Your task to perform on an android device: Find coffee shops on Maps Image 0: 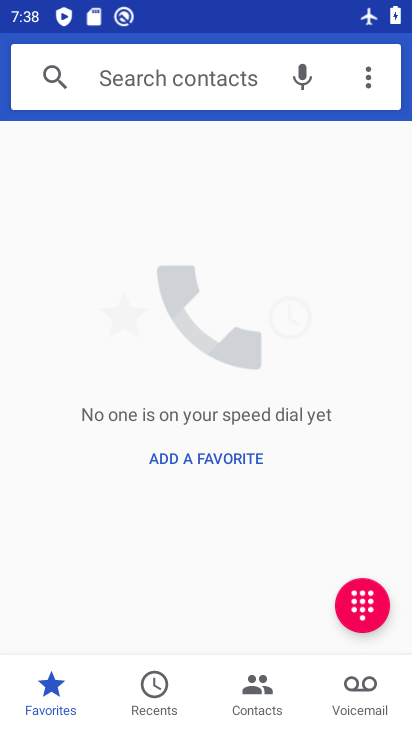
Step 0: press home button
Your task to perform on an android device: Find coffee shops on Maps Image 1: 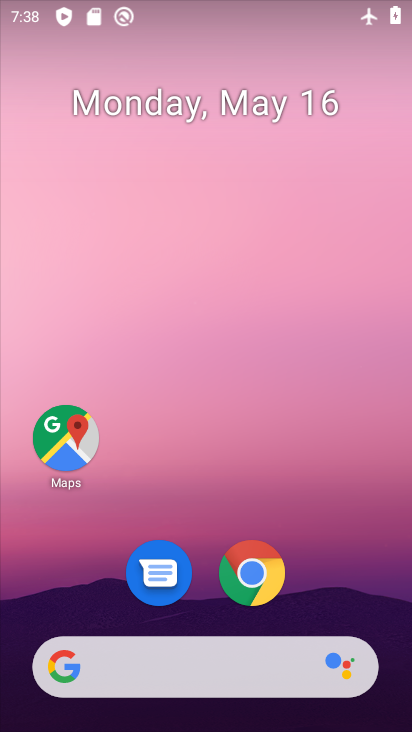
Step 1: drag from (327, 468) to (317, 7)
Your task to perform on an android device: Find coffee shops on Maps Image 2: 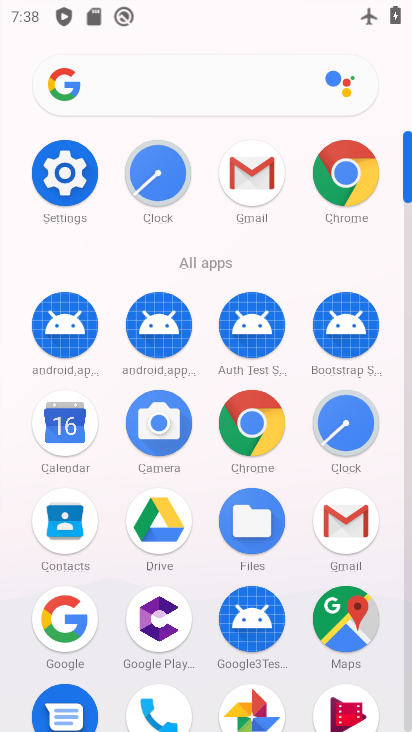
Step 2: drag from (363, 527) to (358, 188)
Your task to perform on an android device: Find coffee shops on Maps Image 3: 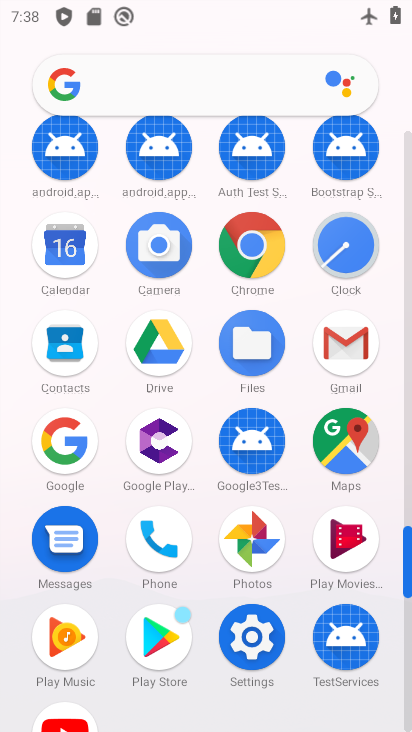
Step 3: click (344, 455)
Your task to perform on an android device: Find coffee shops on Maps Image 4: 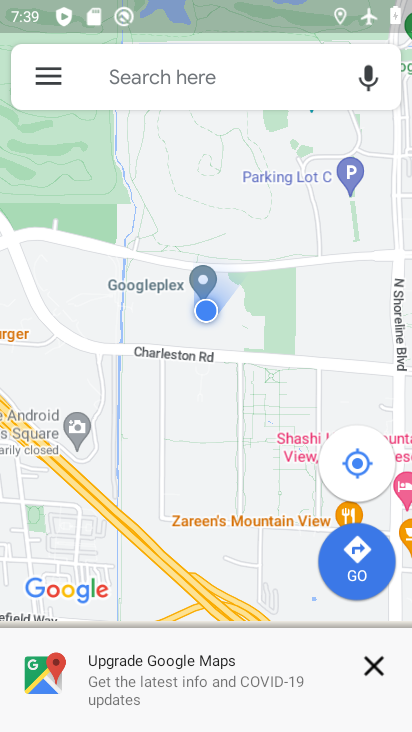
Step 4: click (165, 50)
Your task to perform on an android device: Find coffee shops on Maps Image 5: 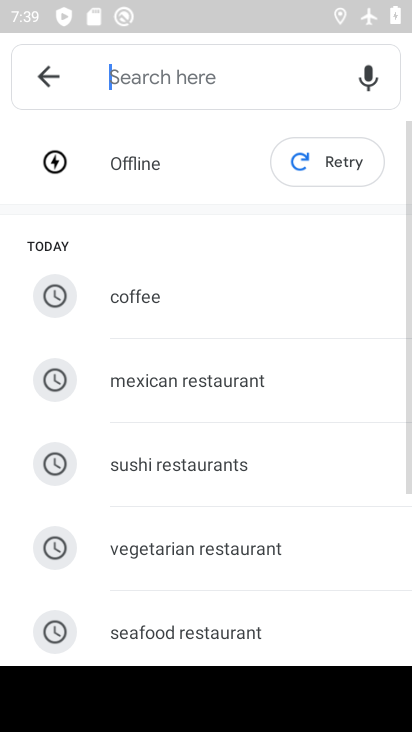
Step 5: click (134, 286)
Your task to perform on an android device: Find coffee shops on Maps Image 6: 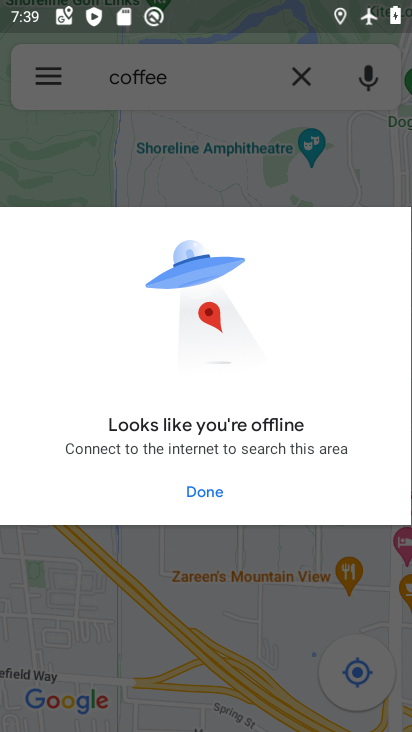
Step 6: task complete